Your task to perform on an android device: Show me popular videos on Youtube Image 0: 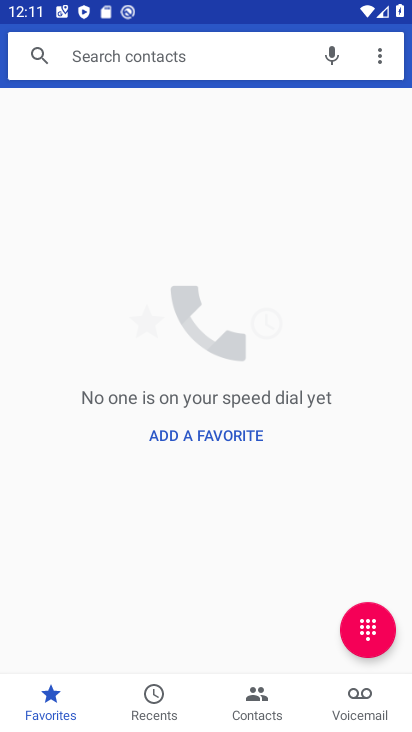
Step 0: drag from (159, 587) to (183, 559)
Your task to perform on an android device: Show me popular videos on Youtube Image 1: 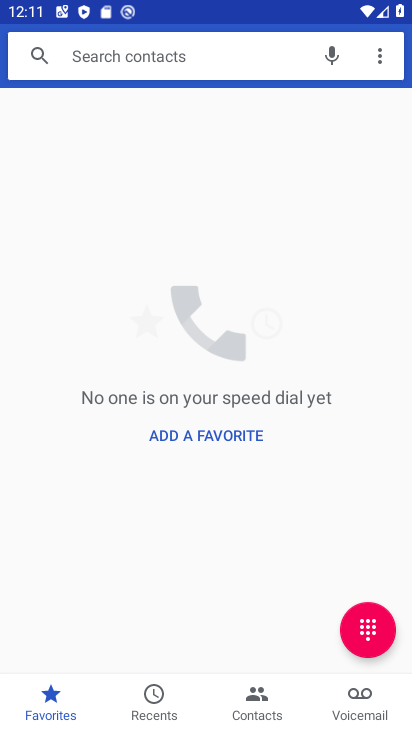
Step 1: press home button
Your task to perform on an android device: Show me popular videos on Youtube Image 2: 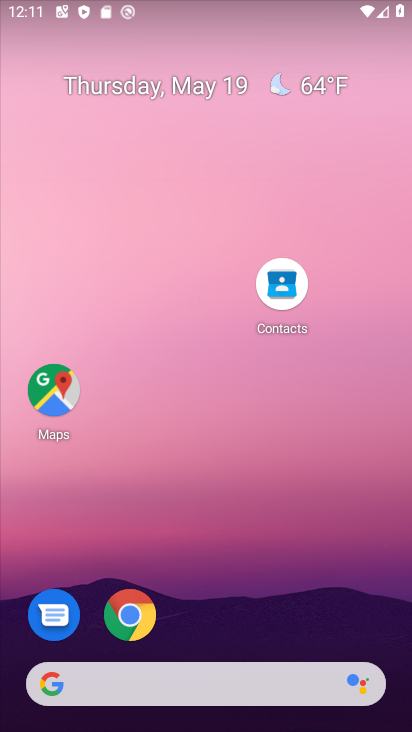
Step 2: drag from (261, 588) to (279, 226)
Your task to perform on an android device: Show me popular videos on Youtube Image 3: 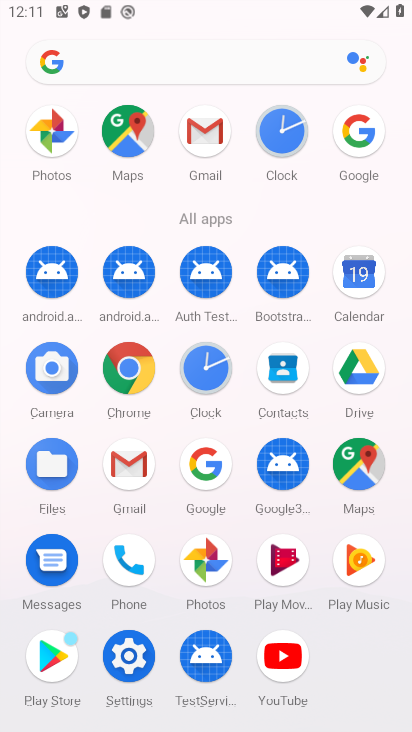
Step 3: click (271, 654)
Your task to perform on an android device: Show me popular videos on Youtube Image 4: 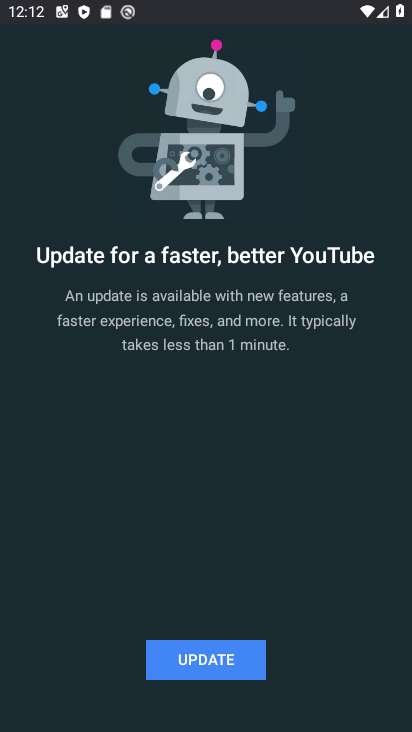
Step 4: click (219, 664)
Your task to perform on an android device: Show me popular videos on Youtube Image 5: 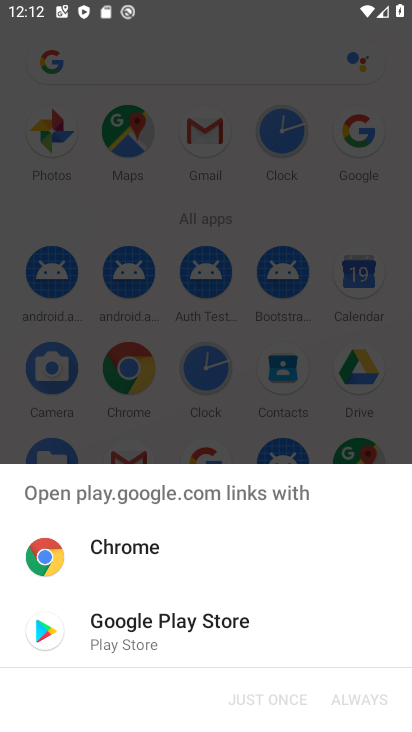
Step 5: click (166, 622)
Your task to perform on an android device: Show me popular videos on Youtube Image 6: 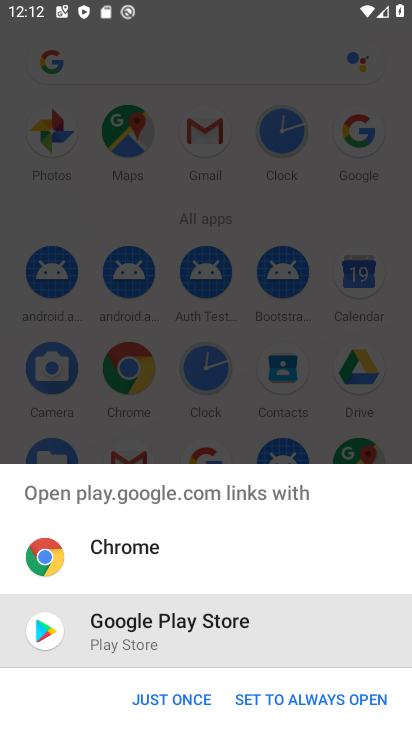
Step 6: click (160, 696)
Your task to perform on an android device: Show me popular videos on Youtube Image 7: 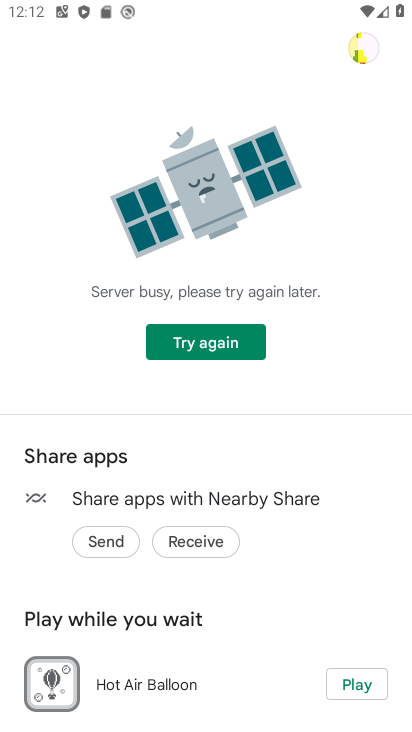
Step 7: click (190, 344)
Your task to perform on an android device: Show me popular videos on Youtube Image 8: 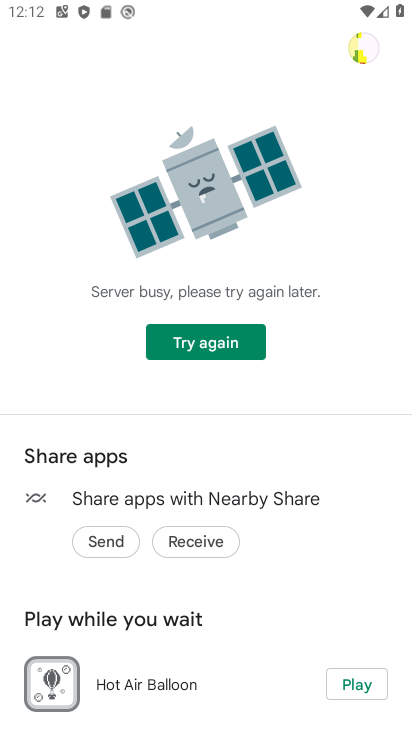
Step 8: task complete